Your task to perform on an android device: Go to Android settings Image 0: 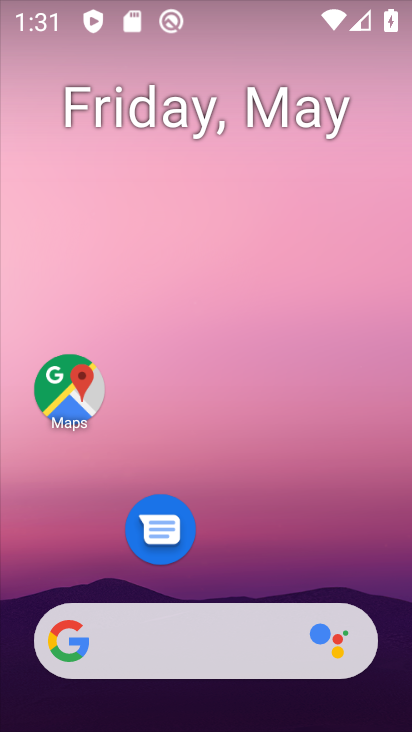
Step 0: drag from (223, 576) to (258, 117)
Your task to perform on an android device: Go to Android settings Image 1: 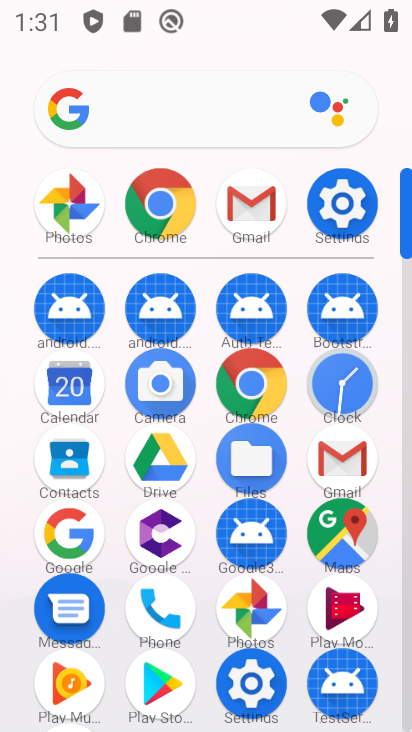
Step 1: click (329, 211)
Your task to perform on an android device: Go to Android settings Image 2: 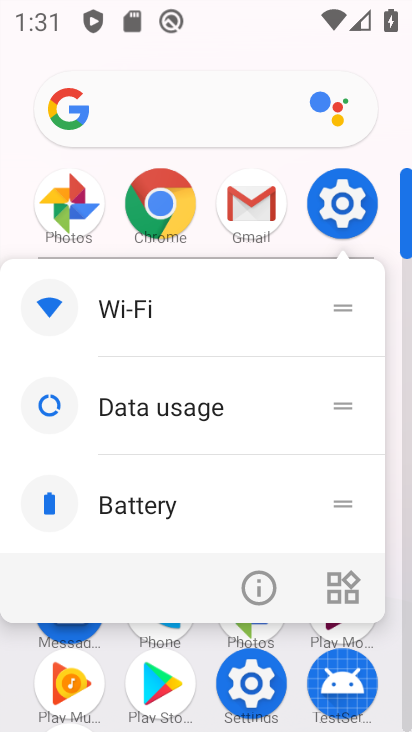
Step 2: click (266, 579)
Your task to perform on an android device: Go to Android settings Image 3: 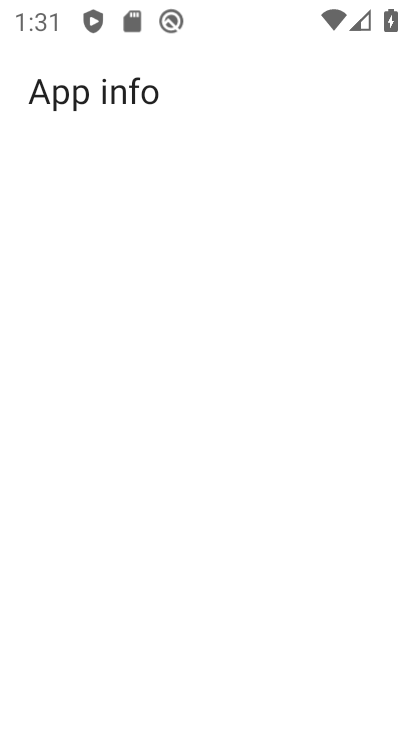
Step 3: drag from (222, 557) to (268, 52)
Your task to perform on an android device: Go to Android settings Image 4: 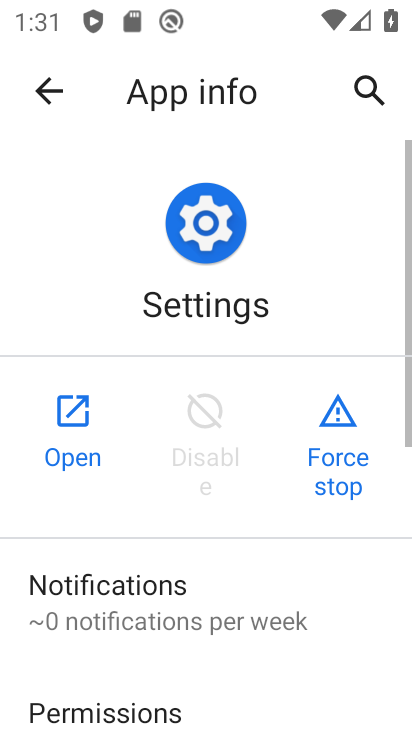
Step 4: drag from (210, 511) to (281, 17)
Your task to perform on an android device: Go to Android settings Image 5: 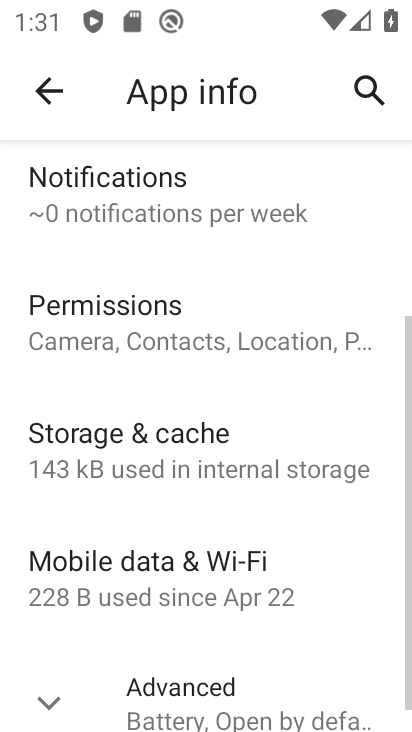
Step 5: drag from (105, 174) to (210, 608)
Your task to perform on an android device: Go to Android settings Image 6: 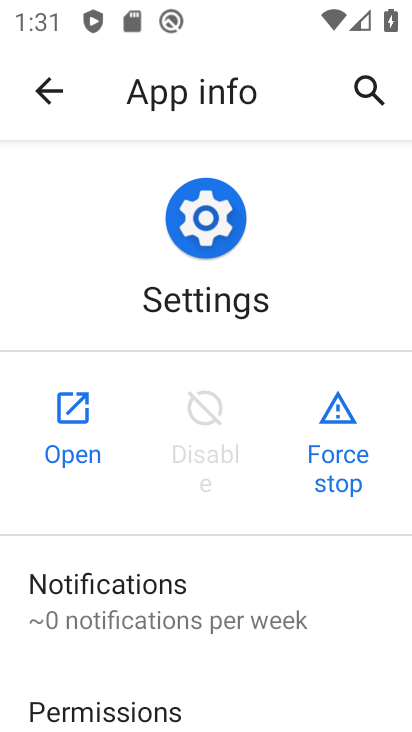
Step 6: click (87, 461)
Your task to perform on an android device: Go to Android settings Image 7: 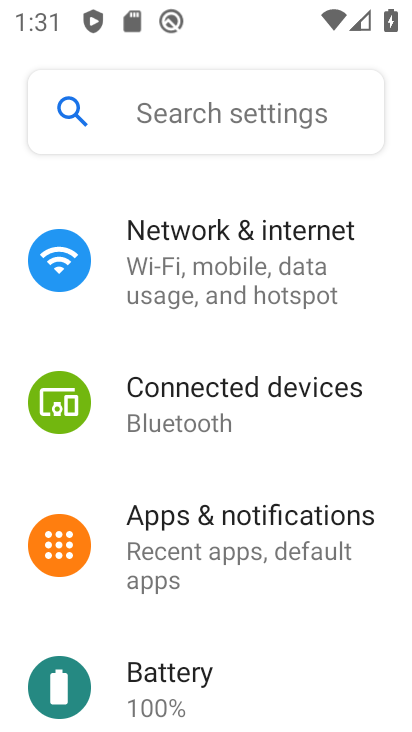
Step 7: drag from (212, 580) to (267, 187)
Your task to perform on an android device: Go to Android settings Image 8: 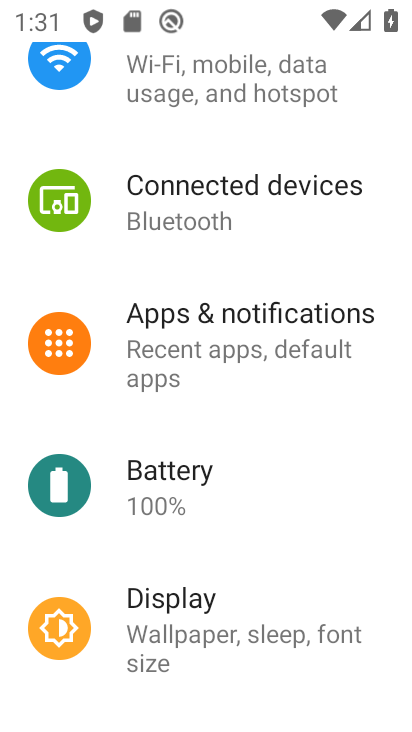
Step 8: drag from (198, 199) to (278, 591)
Your task to perform on an android device: Go to Android settings Image 9: 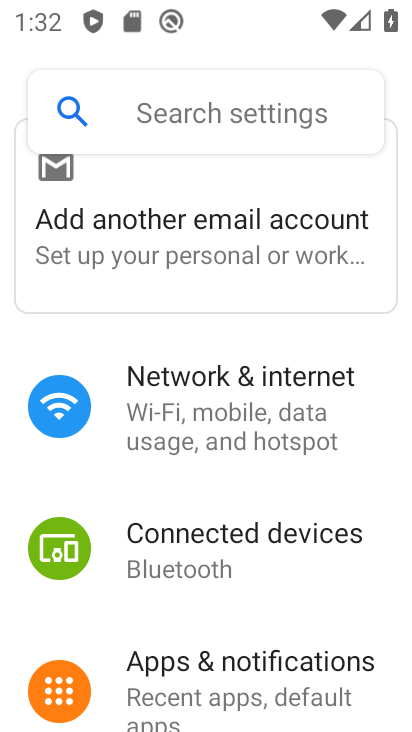
Step 9: drag from (225, 556) to (324, 146)
Your task to perform on an android device: Go to Android settings Image 10: 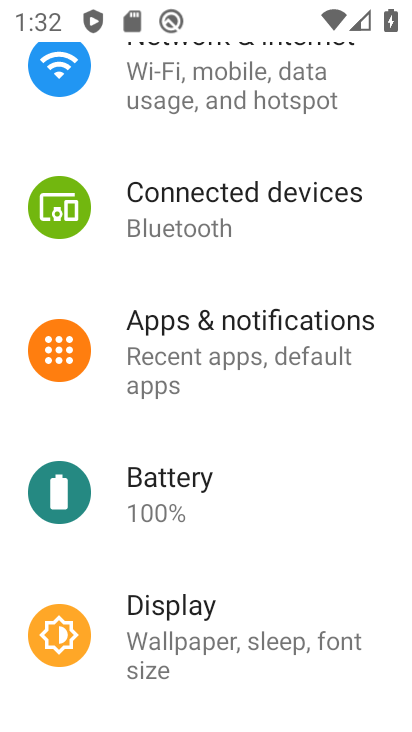
Step 10: drag from (192, 625) to (291, 151)
Your task to perform on an android device: Go to Android settings Image 11: 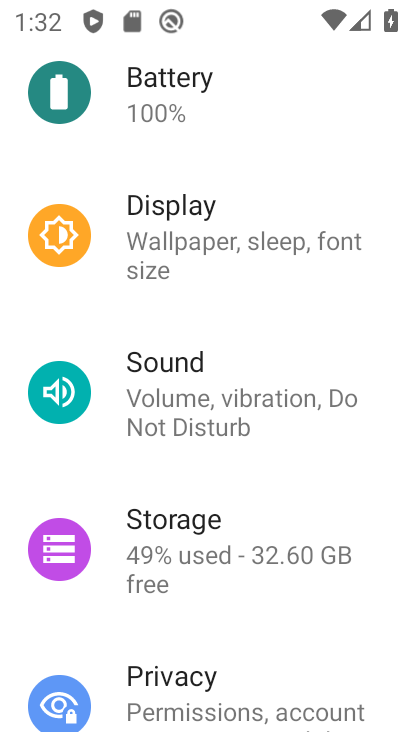
Step 11: drag from (206, 606) to (253, 147)
Your task to perform on an android device: Go to Android settings Image 12: 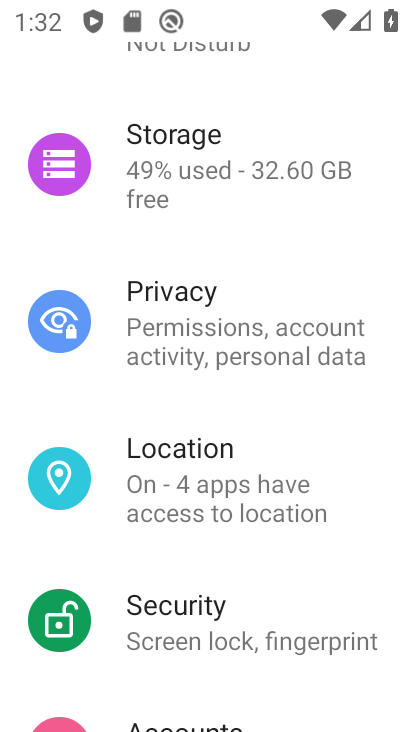
Step 12: drag from (247, 554) to (286, 191)
Your task to perform on an android device: Go to Android settings Image 13: 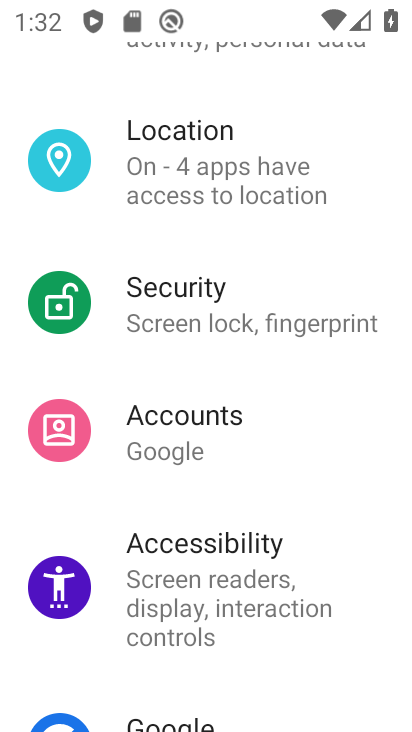
Step 13: drag from (257, 591) to (280, 273)
Your task to perform on an android device: Go to Android settings Image 14: 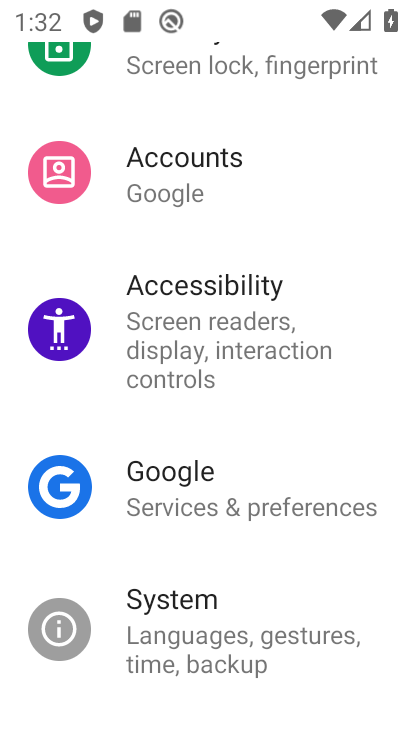
Step 14: drag from (218, 612) to (266, 208)
Your task to perform on an android device: Go to Android settings Image 15: 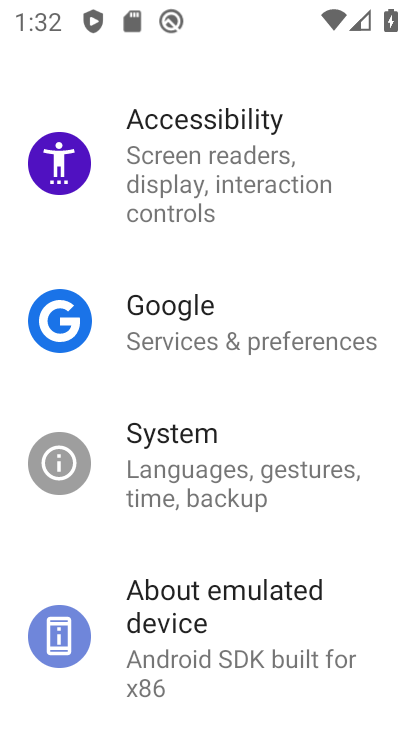
Step 15: click (225, 635)
Your task to perform on an android device: Go to Android settings Image 16: 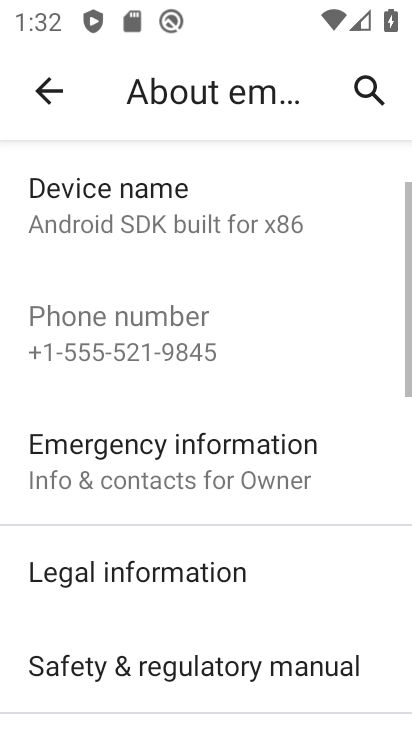
Step 16: drag from (199, 466) to (267, 38)
Your task to perform on an android device: Go to Android settings Image 17: 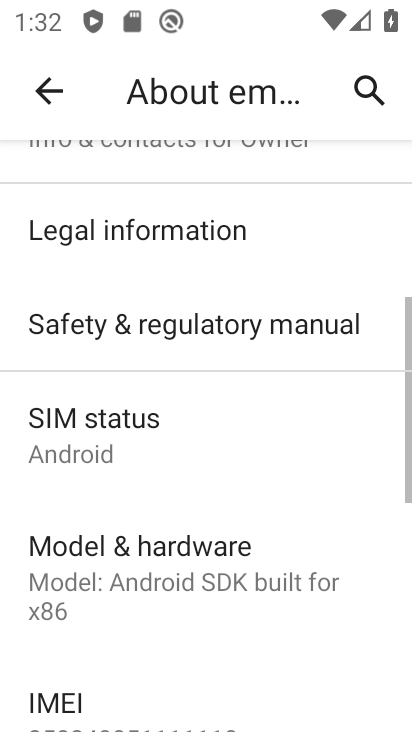
Step 17: drag from (203, 619) to (242, 131)
Your task to perform on an android device: Go to Android settings Image 18: 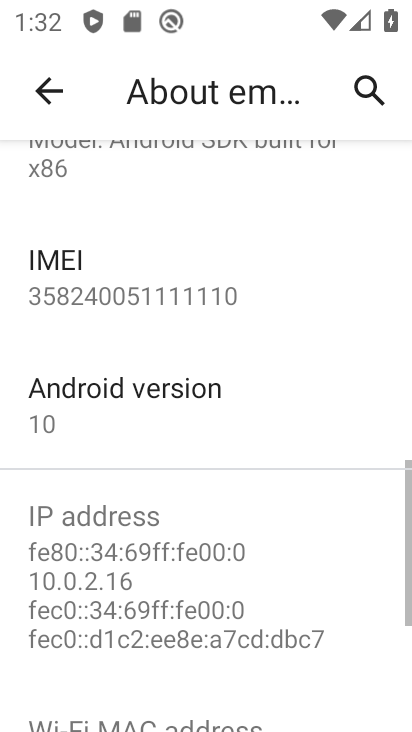
Step 18: click (148, 417)
Your task to perform on an android device: Go to Android settings Image 19: 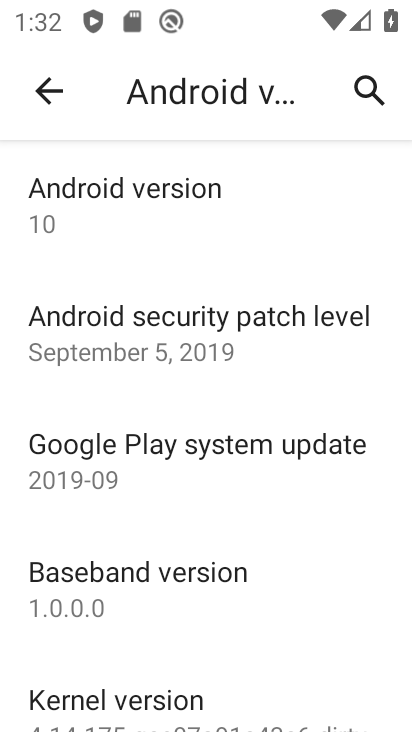
Step 19: drag from (205, 645) to (218, 277)
Your task to perform on an android device: Go to Android settings Image 20: 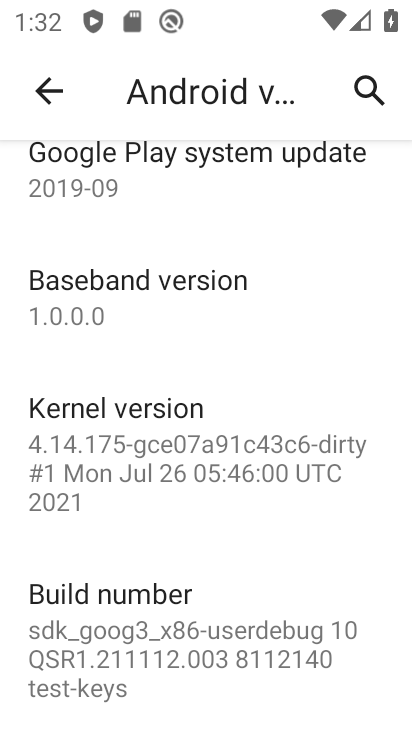
Step 20: drag from (212, 271) to (255, 726)
Your task to perform on an android device: Go to Android settings Image 21: 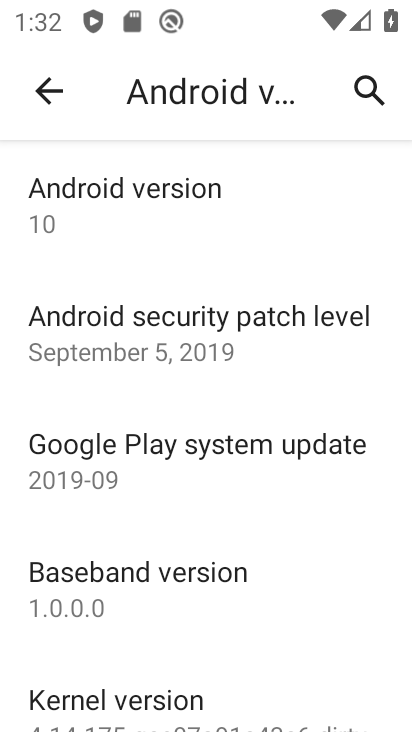
Step 21: click (124, 235)
Your task to perform on an android device: Go to Android settings Image 22: 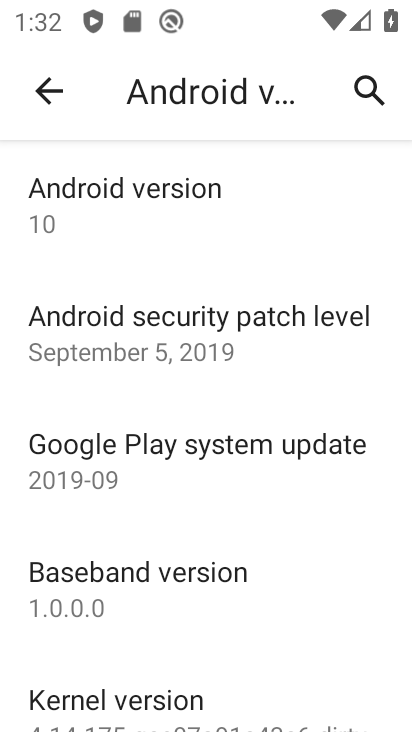
Step 22: task complete